Your task to perform on an android device: Go to notification settings Image 0: 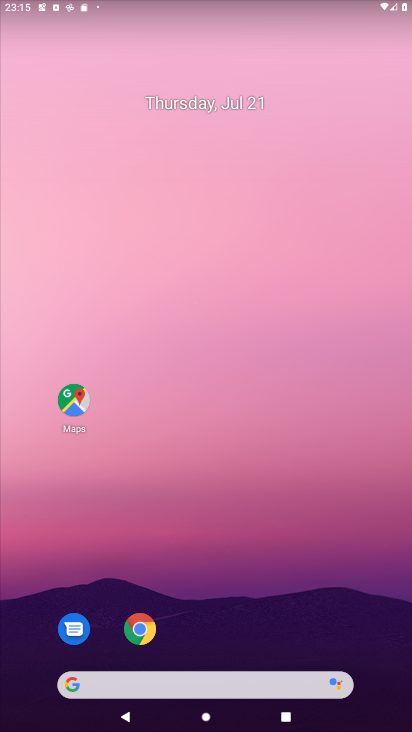
Step 0: drag from (212, 630) to (235, 176)
Your task to perform on an android device: Go to notification settings Image 1: 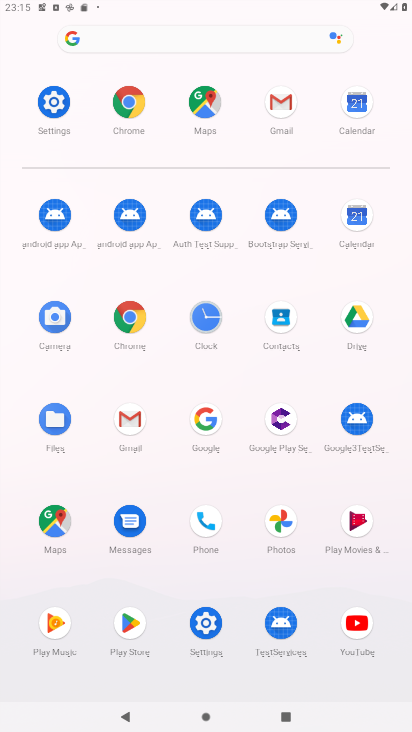
Step 1: click (214, 634)
Your task to perform on an android device: Go to notification settings Image 2: 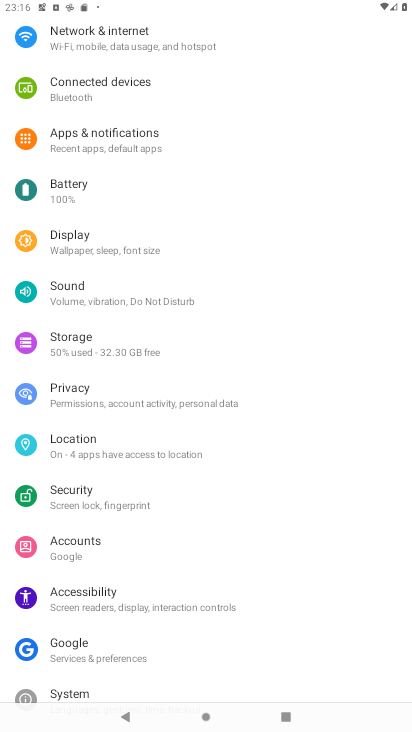
Step 2: click (173, 142)
Your task to perform on an android device: Go to notification settings Image 3: 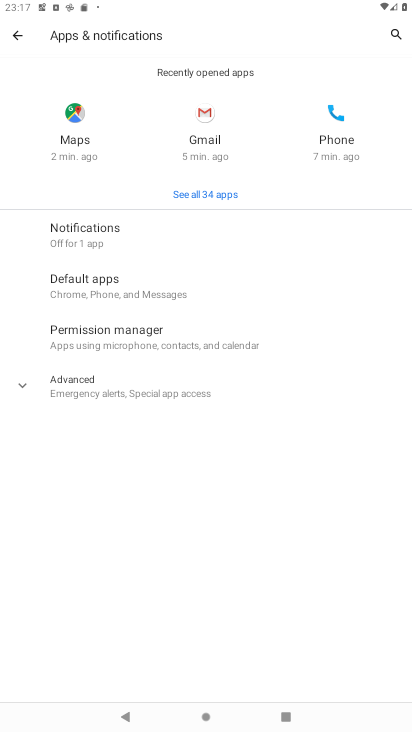
Step 3: click (137, 243)
Your task to perform on an android device: Go to notification settings Image 4: 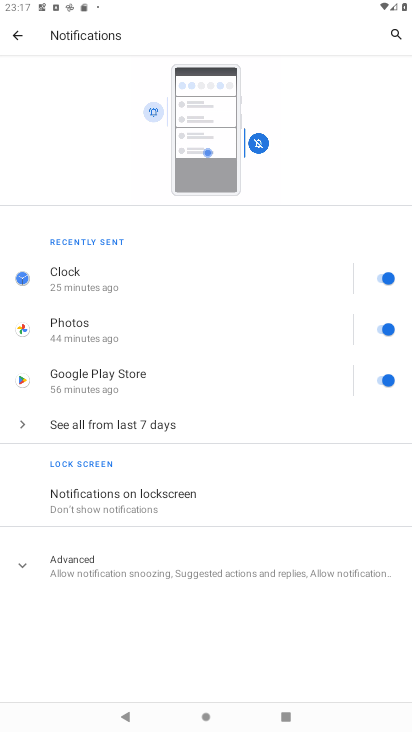
Step 4: task complete